Your task to perform on an android device: make emails show in primary in the gmail app Image 0: 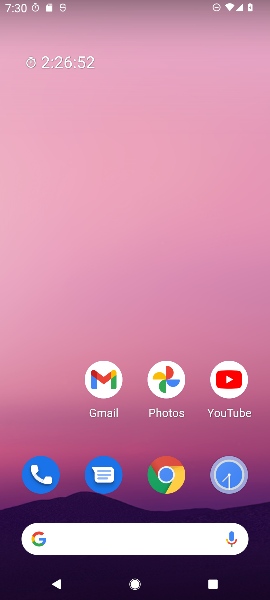
Step 0: press home button
Your task to perform on an android device: make emails show in primary in the gmail app Image 1: 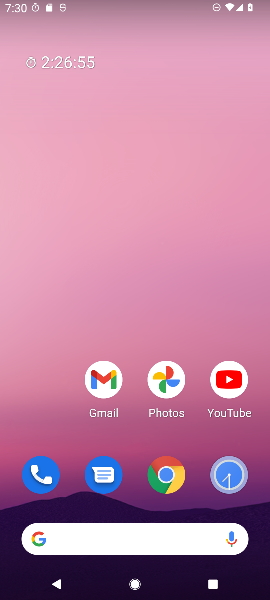
Step 1: drag from (60, 439) to (51, 196)
Your task to perform on an android device: make emails show in primary in the gmail app Image 2: 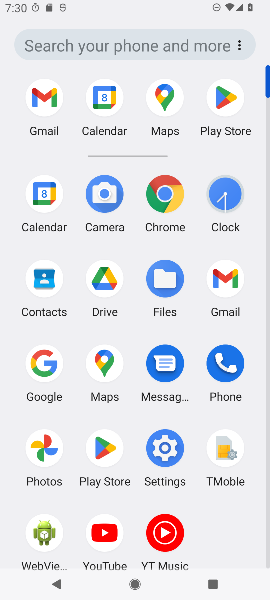
Step 2: click (225, 280)
Your task to perform on an android device: make emails show in primary in the gmail app Image 3: 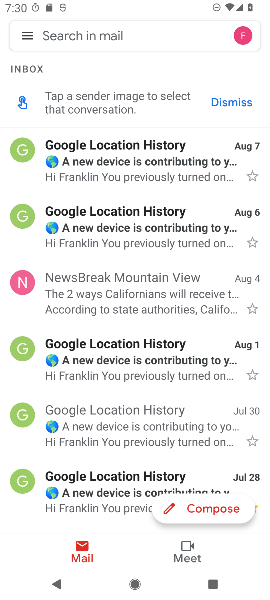
Step 3: click (27, 34)
Your task to perform on an android device: make emails show in primary in the gmail app Image 4: 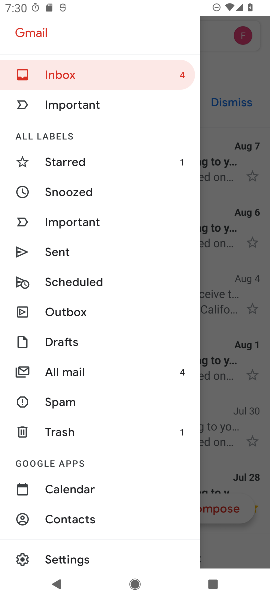
Step 4: drag from (134, 275) to (142, 218)
Your task to perform on an android device: make emails show in primary in the gmail app Image 5: 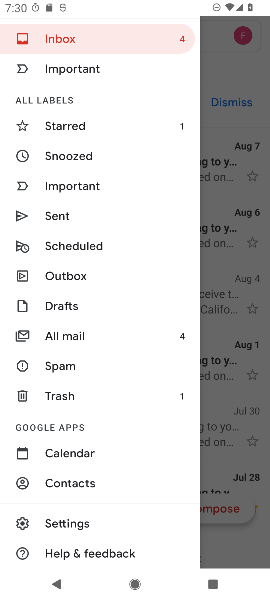
Step 5: drag from (134, 358) to (141, 248)
Your task to perform on an android device: make emails show in primary in the gmail app Image 6: 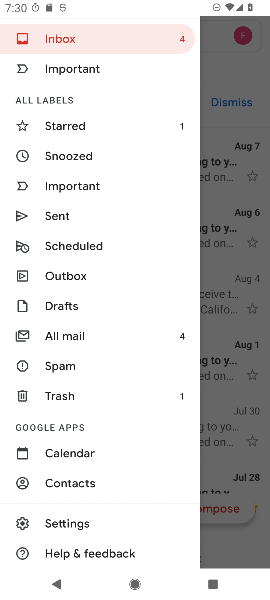
Step 6: click (81, 524)
Your task to perform on an android device: make emails show in primary in the gmail app Image 7: 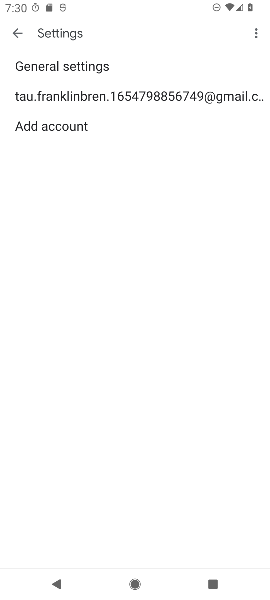
Step 7: click (150, 97)
Your task to perform on an android device: make emails show in primary in the gmail app Image 8: 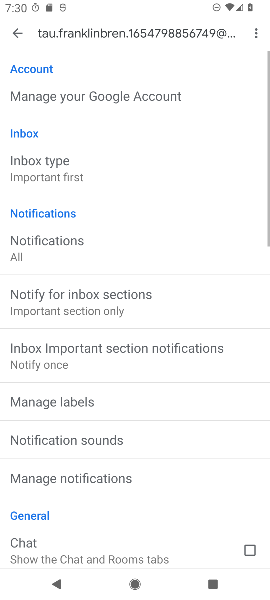
Step 8: drag from (190, 361) to (203, 282)
Your task to perform on an android device: make emails show in primary in the gmail app Image 9: 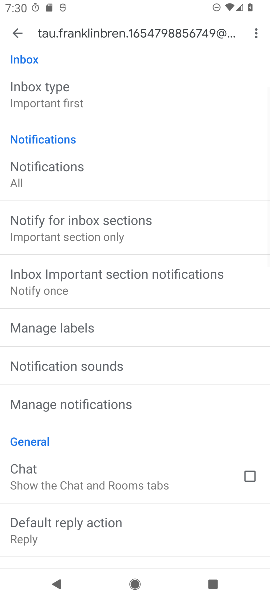
Step 9: drag from (202, 397) to (216, 315)
Your task to perform on an android device: make emails show in primary in the gmail app Image 10: 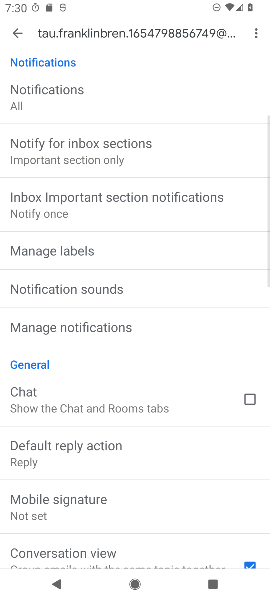
Step 10: drag from (204, 389) to (202, 322)
Your task to perform on an android device: make emails show in primary in the gmail app Image 11: 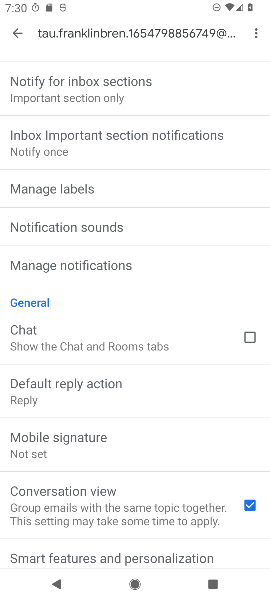
Step 11: drag from (187, 426) to (198, 349)
Your task to perform on an android device: make emails show in primary in the gmail app Image 12: 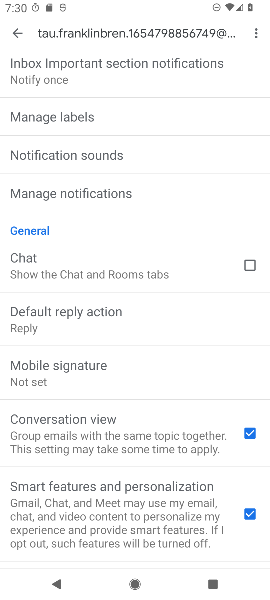
Step 12: drag from (194, 442) to (196, 339)
Your task to perform on an android device: make emails show in primary in the gmail app Image 13: 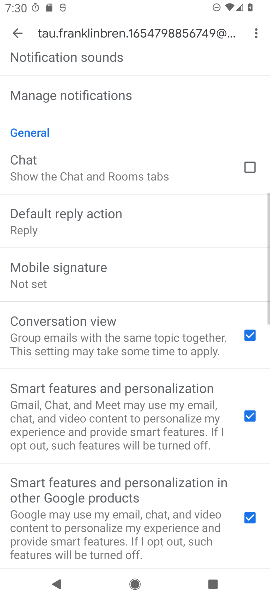
Step 13: drag from (198, 429) to (191, 327)
Your task to perform on an android device: make emails show in primary in the gmail app Image 14: 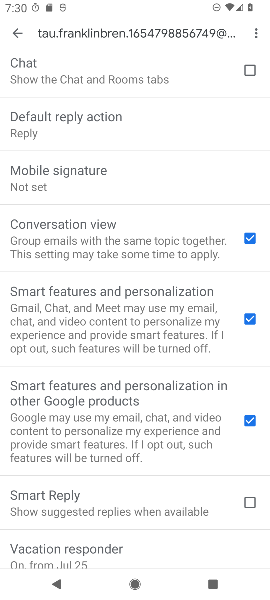
Step 14: drag from (175, 178) to (176, 246)
Your task to perform on an android device: make emails show in primary in the gmail app Image 15: 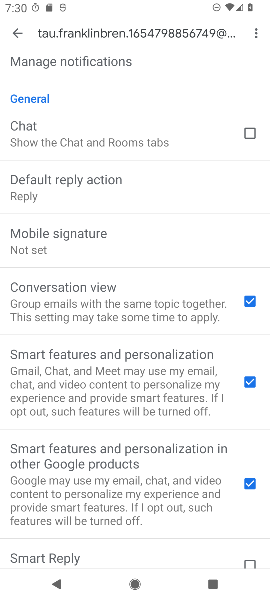
Step 15: drag from (192, 151) to (192, 219)
Your task to perform on an android device: make emails show in primary in the gmail app Image 16: 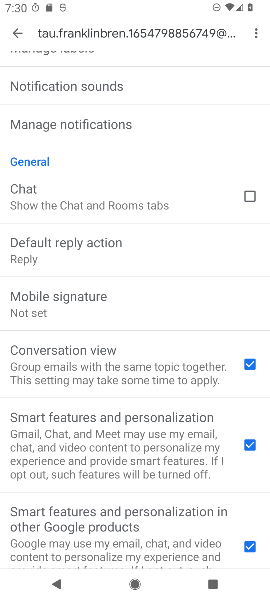
Step 16: drag from (192, 142) to (196, 222)
Your task to perform on an android device: make emails show in primary in the gmail app Image 17: 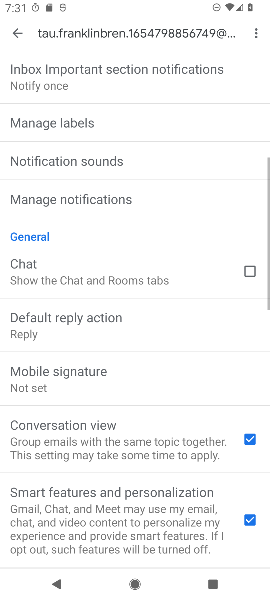
Step 17: drag from (187, 108) to (189, 239)
Your task to perform on an android device: make emails show in primary in the gmail app Image 18: 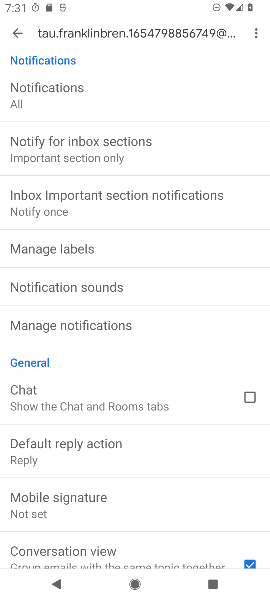
Step 18: drag from (190, 91) to (196, 239)
Your task to perform on an android device: make emails show in primary in the gmail app Image 19: 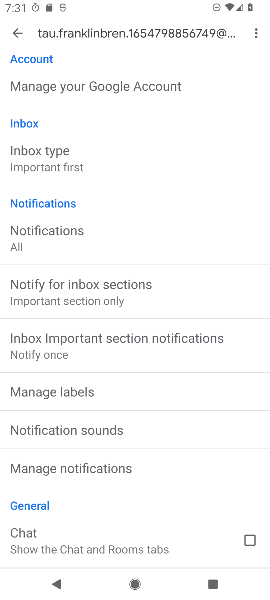
Step 19: drag from (180, 112) to (188, 259)
Your task to perform on an android device: make emails show in primary in the gmail app Image 20: 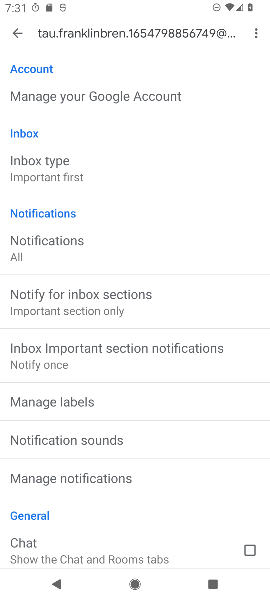
Step 20: click (64, 170)
Your task to perform on an android device: make emails show in primary in the gmail app Image 21: 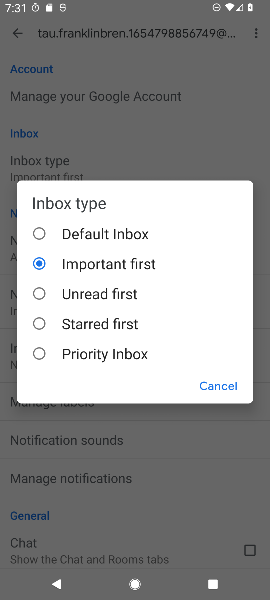
Step 21: click (83, 227)
Your task to perform on an android device: make emails show in primary in the gmail app Image 22: 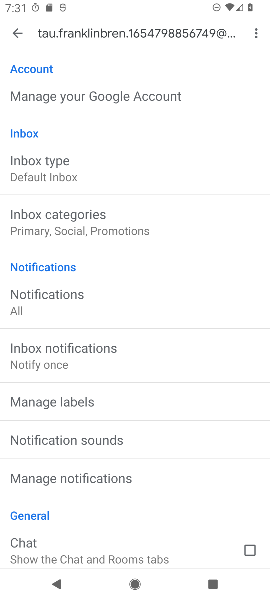
Step 22: click (103, 221)
Your task to perform on an android device: make emails show in primary in the gmail app Image 23: 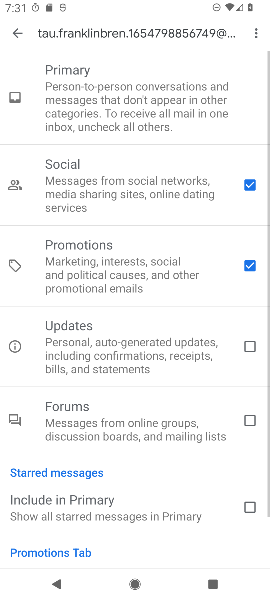
Step 23: click (245, 264)
Your task to perform on an android device: make emails show in primary in the gmail app Image 24: 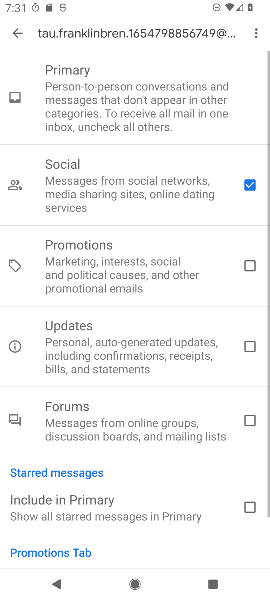
Step 24: click (249, 181)
Your task to perform on an android device: make emails show in primary in the gmail app Image 25: 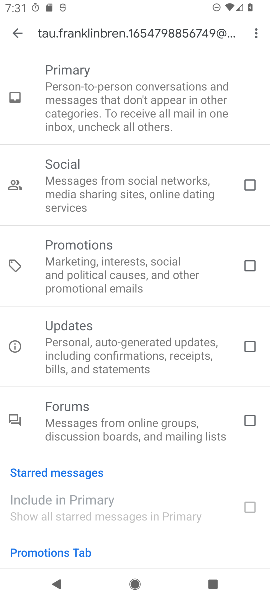
Step 25: task complete